Your task to perform on an android device: turn off priority inbox in the gmail app Image 0: 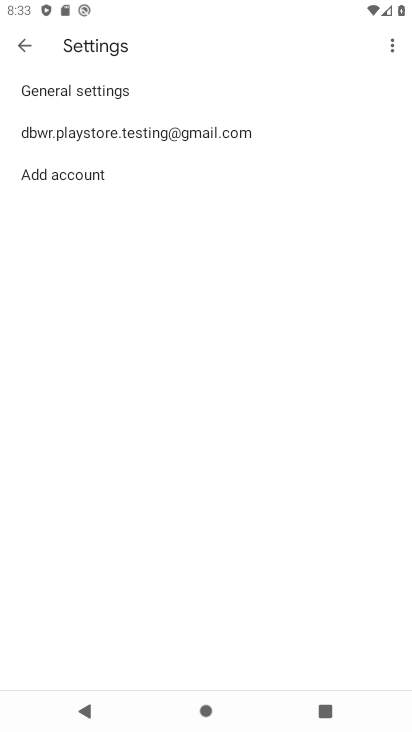
Step 0: drag from (243, 544) to (208, 229)
Your task to perform on an android device: turn off priority inbox in the gmail app Image 1: 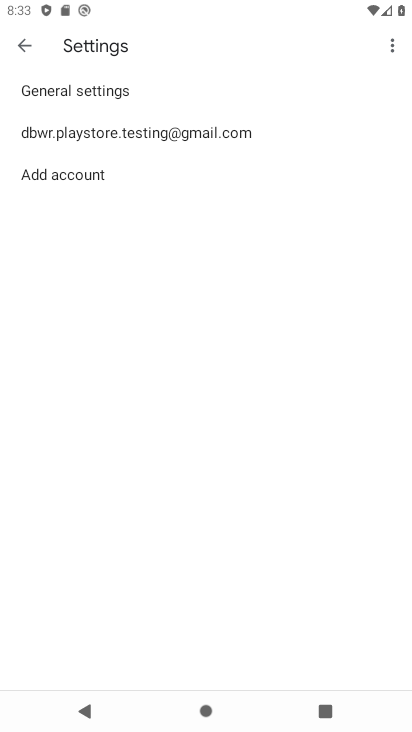
Step 1: press back button
Your task to perform on an android device: turn off priority inbox in the gmail app Image 2: 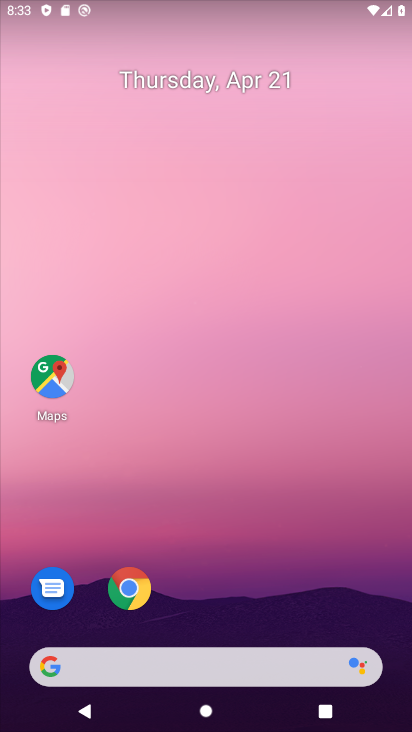
Step 2: drag from (224, 547) to (111, 53)
Your task to perform on an android device: turn off priority inbox in the gmail app Image 3: 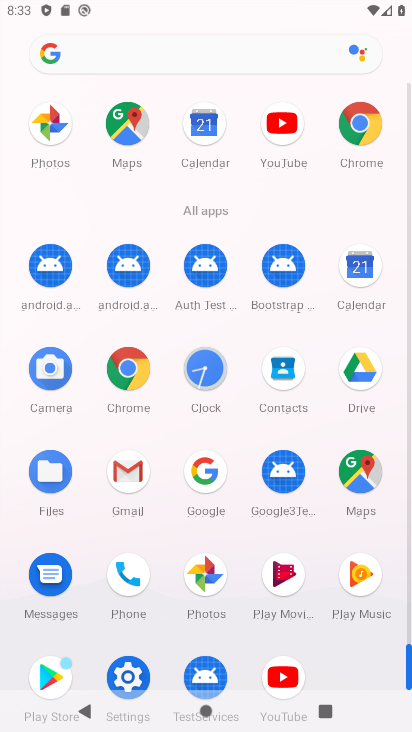
Step 3: click (127, 463)
Your task to perform on an android device: turn off priority inbox in the gmail app Image 4: 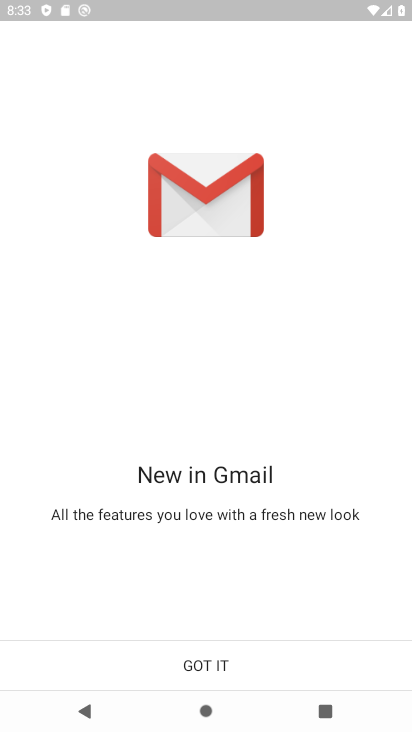
Step 4: click (204, 651)
Your task to perform on an android device: turn off priority inbox in the gmail app Image 5: 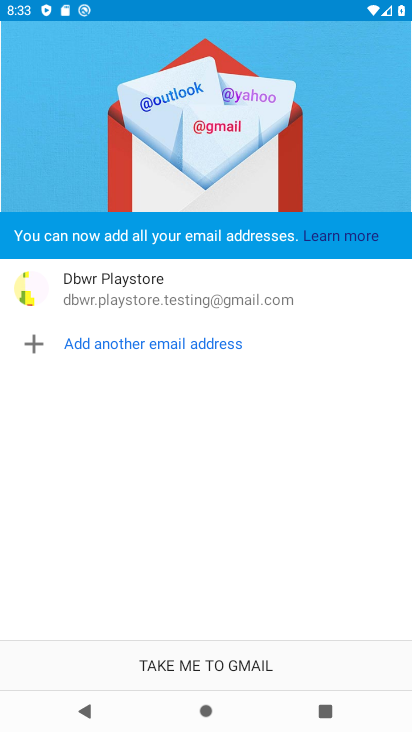
Step 5: click (206, 664)
Your task to perform on an android device: turn off priority inbox in the gmail app Image 6: 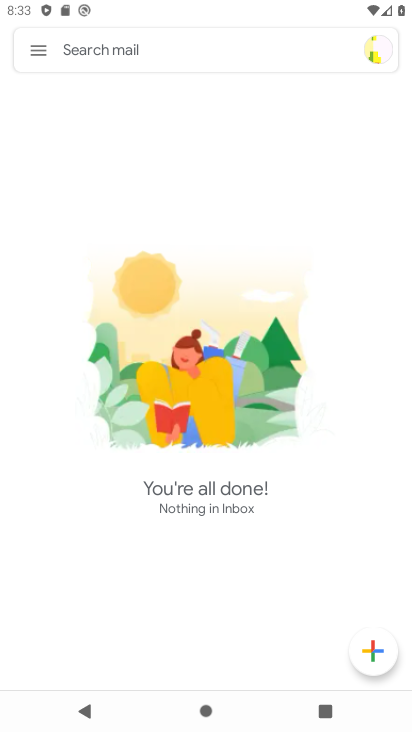
Step 6: click (46, 42)
Your task to perform on an android device: turn off priority inbox in the gmail app Image 7: 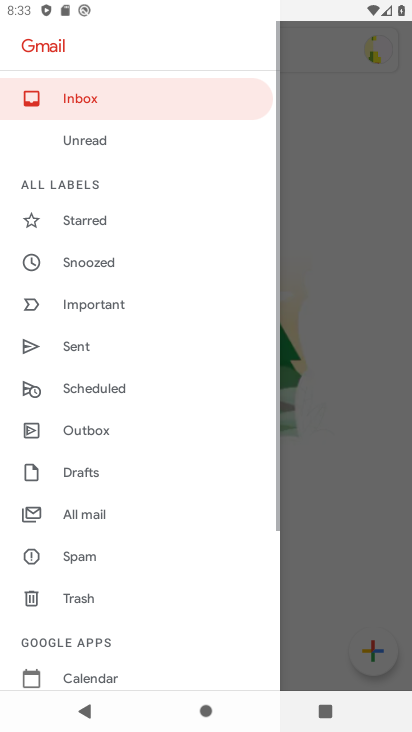
Step 7: drag from (127, 629) to (169, 158)
Your task to perform on an android device: turn off priority inbox in the gmail app Image 8: 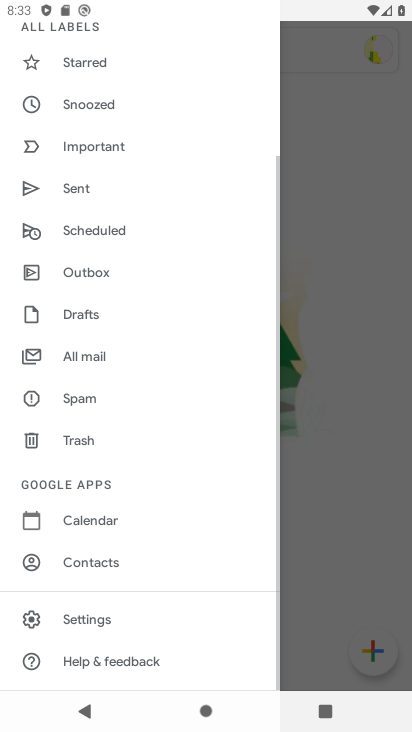
Step 8: click (96, 613)
Your task to perform on an android device: turn off priority inbox in the gmail app Image 9: 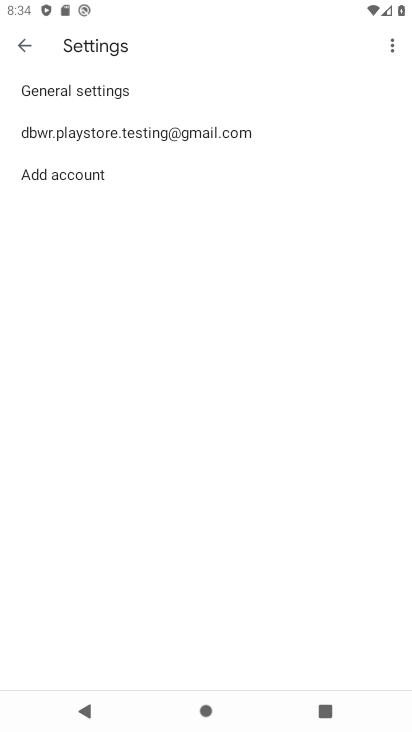
Step 9: click (197, 125)
Your task to perform on an android device: turn off priority inbox in the gmail app Image 10: 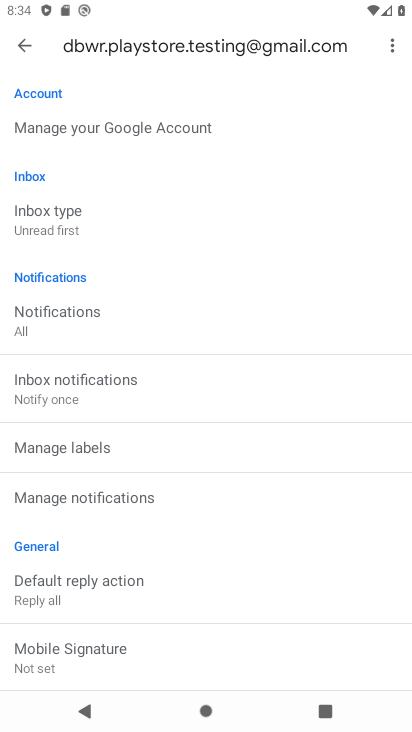
Step 10: click (80, 222)
Your task to perform on an android device: turn off priority inbox in the gmail app Image 11: 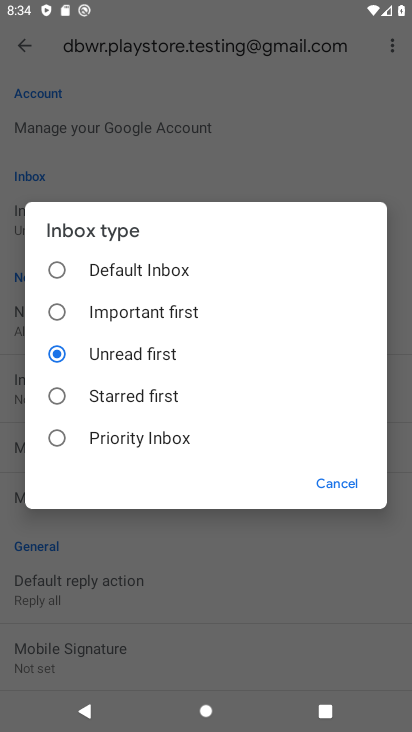
Step 11: click (123, 268)
Your task to perform on an android device: turn off priority inbox in the gmail app Image 12: 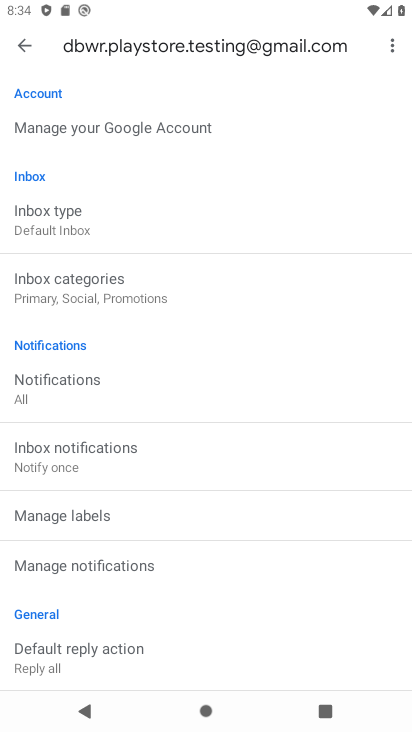
Step 12: task complete